Your task to perform on an android device: Open settings Image 0: 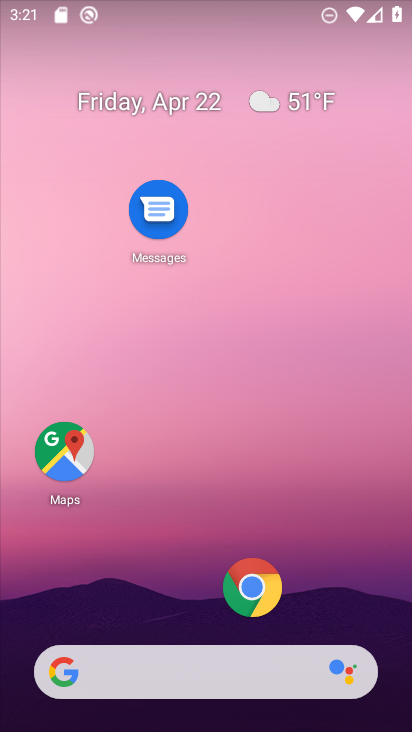
Step 0: drag from (187, 591) to (229, 173)
Your task to perform on an android device: Open settings Image 1: 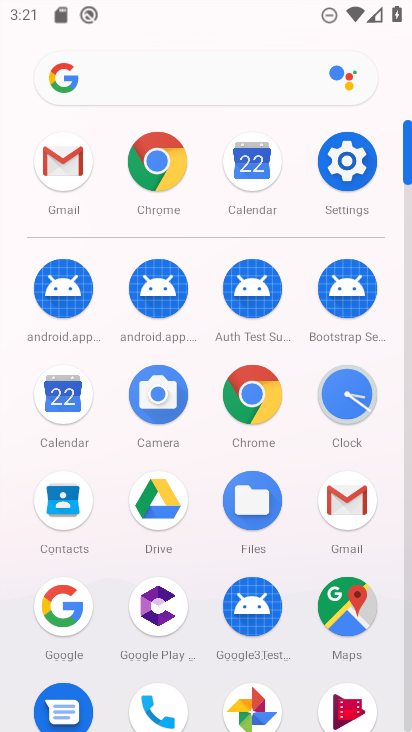
Step 1: click (342, 158)
Your task to perform on an android device: Open settings Image 2: 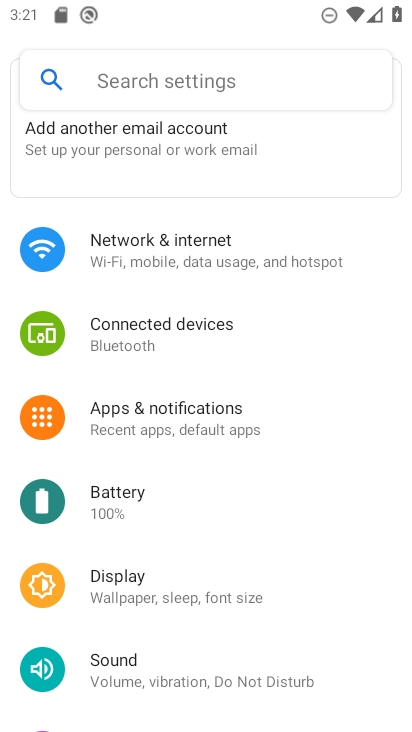
Step 2: task complete